Your task to perform on an android device: Open Google Chrome and click the shortcut for Amazon.com Image 0: 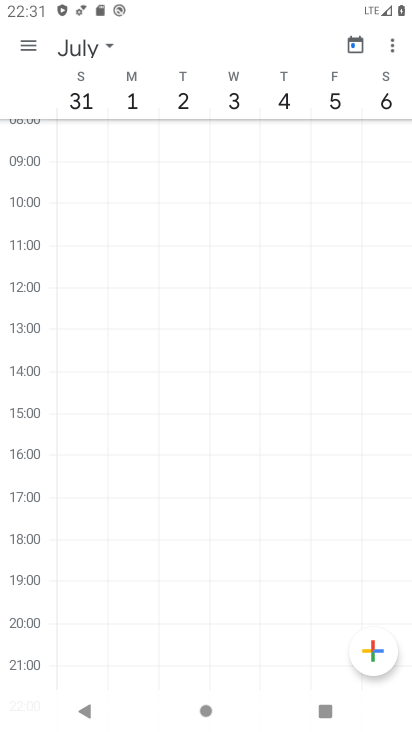
Step 0: press home button
Your task to perform on an android device: Open Google Chrome and click the shortcut for Amazon.com Image 1: 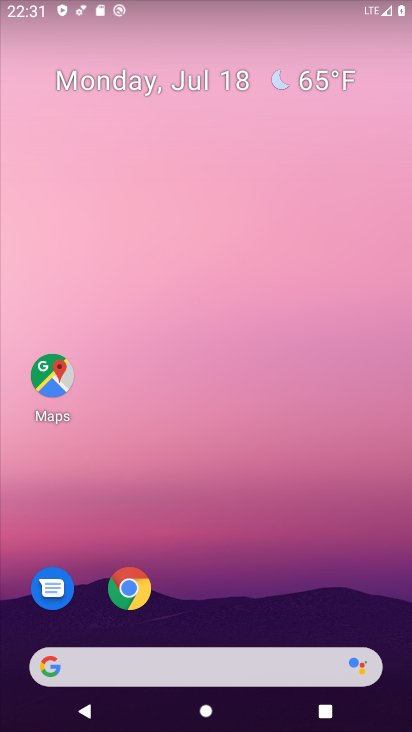
Step 1: click (135, 585)
Your task to perform on an android device: Open Google Chrome and click the shortcut for Amazon.com Image 2: 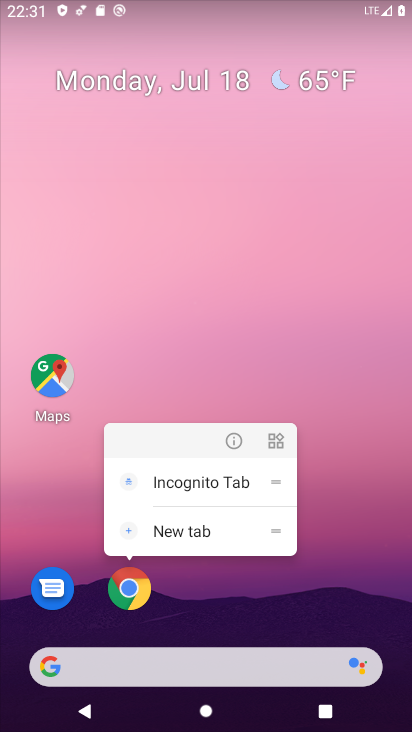
Step 2: click (136, 573)
Your task to perform on an android device: Open Google Chrome and click the shortcut for Amazon.com Image 3: 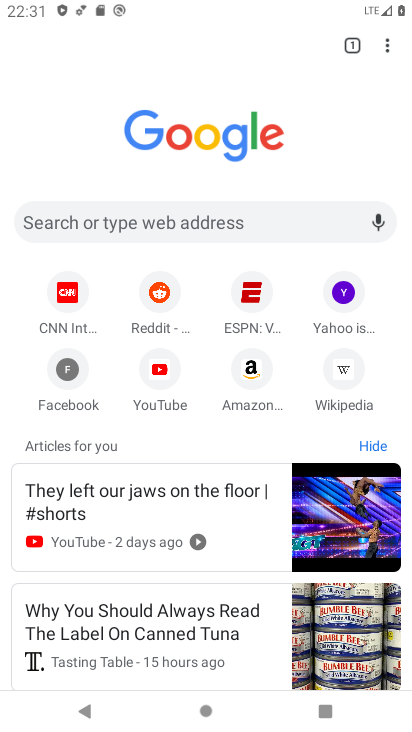
Step 3: click (240, 362)
Your task to perform on an android device: Open Google Chrome and click the shortcut for Amazon.com Image 4: 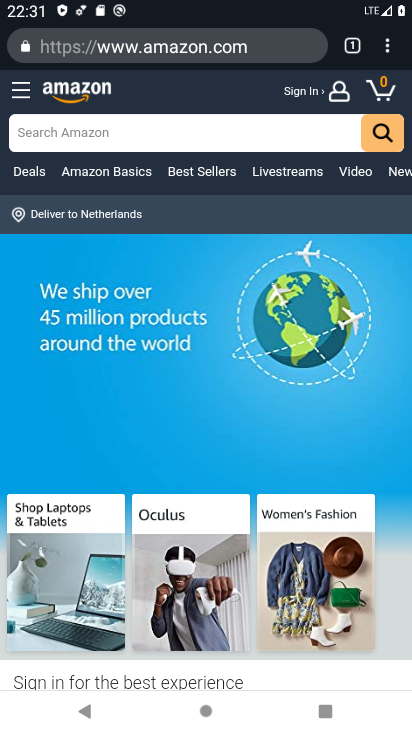
Step 4: task complete